Your task to perform on an android device: Find coffee shops on Maps Image 0: 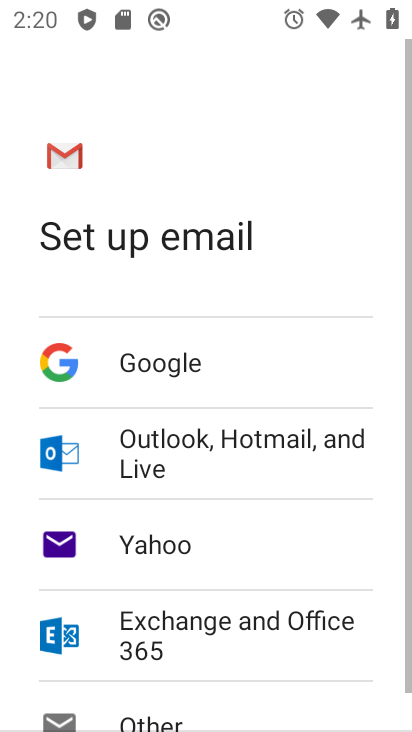
Step 0: press home button
Your task to perform on an android device: Find coffee shops on Maps Image 1: 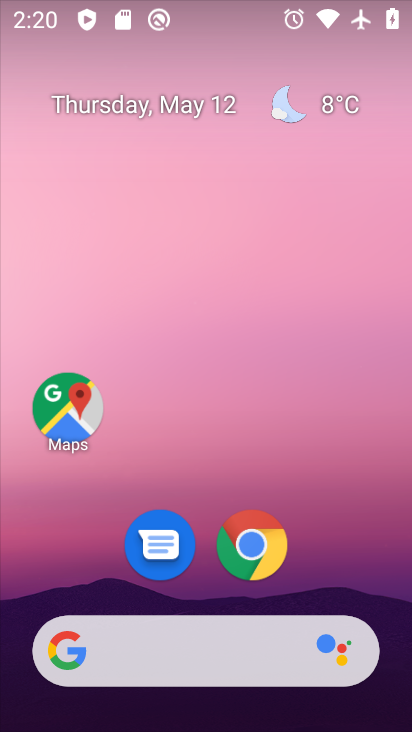
Step 1: click (65, 406)
Your task to perform on an android device: Find coffee shops on Maps Image 2: 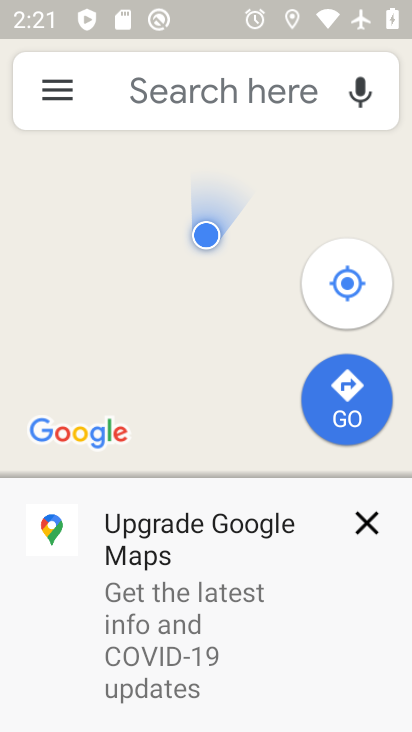
Step 2: click (151, 93)
Your task to perform on an android device: Find coffee shops on Maps Image 3: 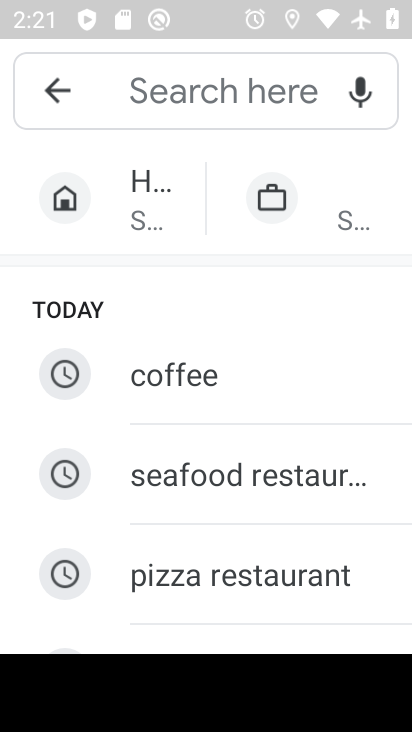
Step 3: type "coffee shop"
Your task to perform on an android device: Find coffee shops on Maps Image 4: 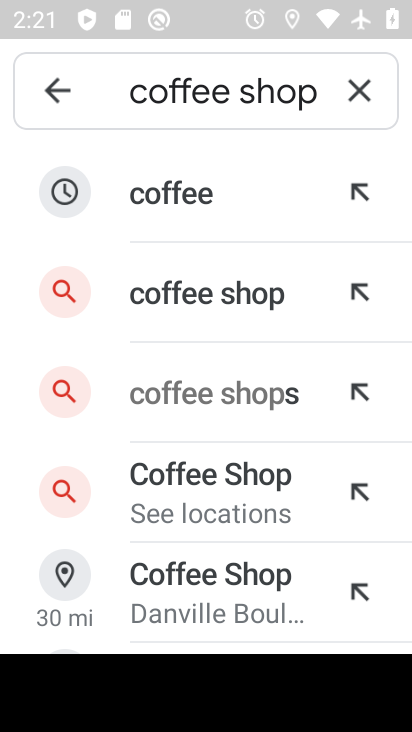
Step 4: click (182, 286)
Your task to perform on an android device: Find coffee shops on Maps Image 5: 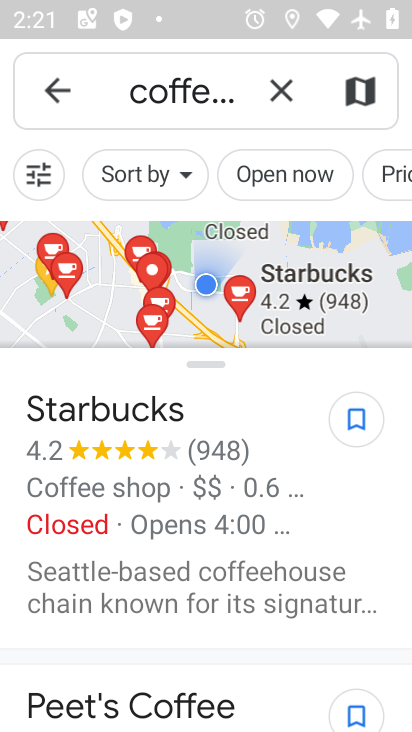
Step 5: task complete